Your task to perform on an android device: Open network settings Image 0: 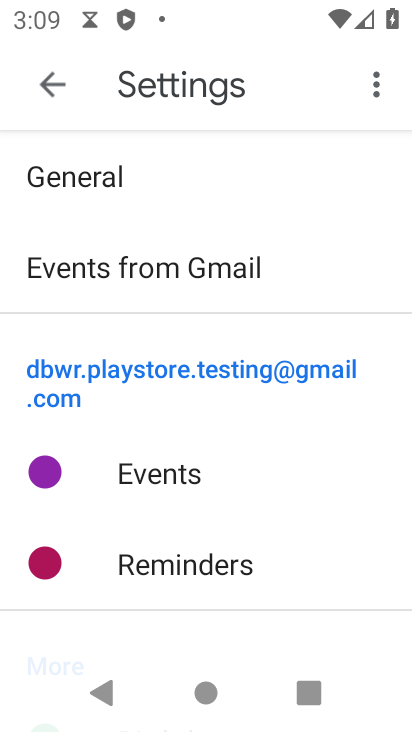
Step 0: press back button
Your task to perform on an android device: Open network settings Image 1: 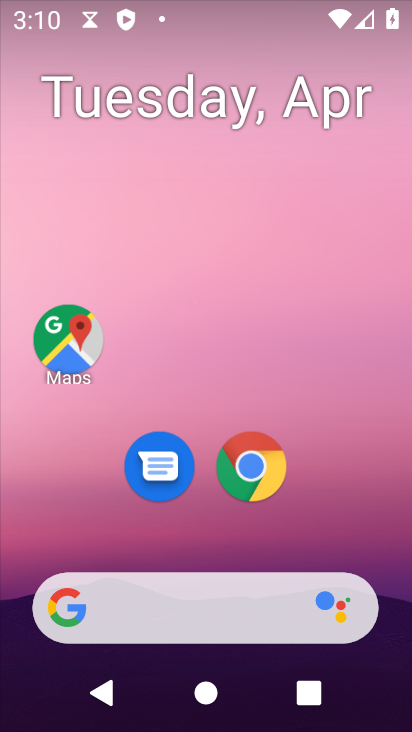
Step 1: drag from (307, 386) to (221, 19)
Your task to perform on an android device: Open network settings Image 2: 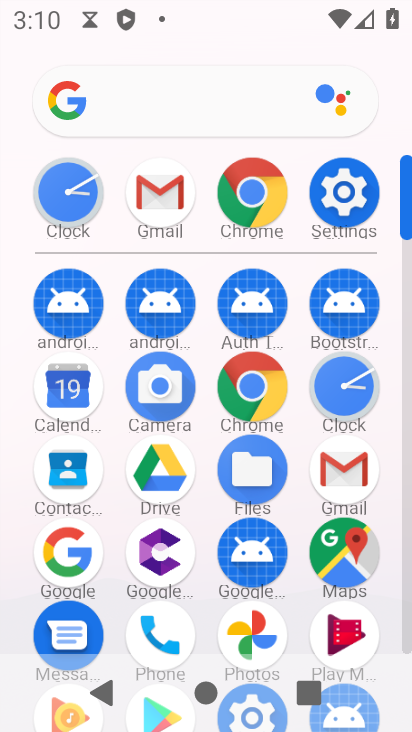
Step 2: drag from (7, 482) to (3, 241)
Your task to perform on an android device: Open network settings Image 3: 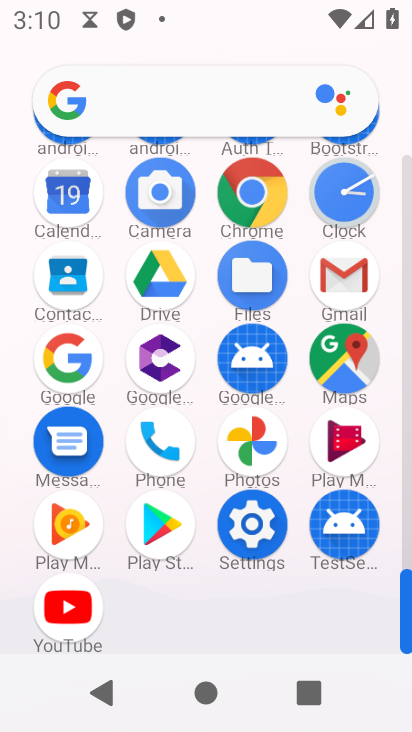
Step 3: drag from (4, 229) to (0, 370)
Your task to perform on an android device: Open network settings Image 4: 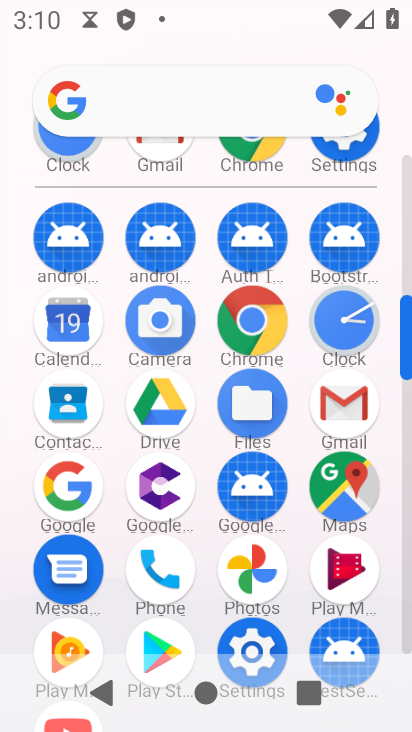
Step 4: click (251, 637)
Your task to perform on an android device: Open network settings Image 5: 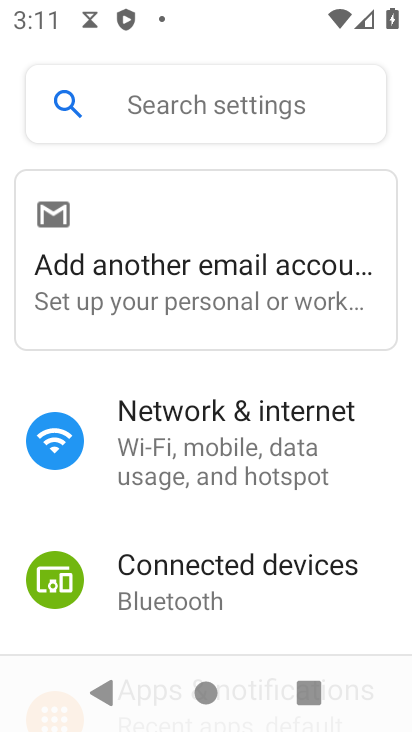
Step 5: click (230, 451)
Your task to perform on an android device: Open network settings Image 6: 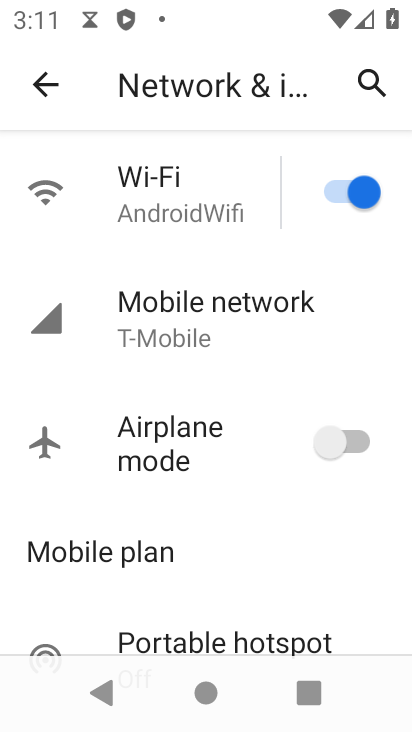
Step 6: click (238, 338)
Your task to perform on an android device: Open network settings Image 7: 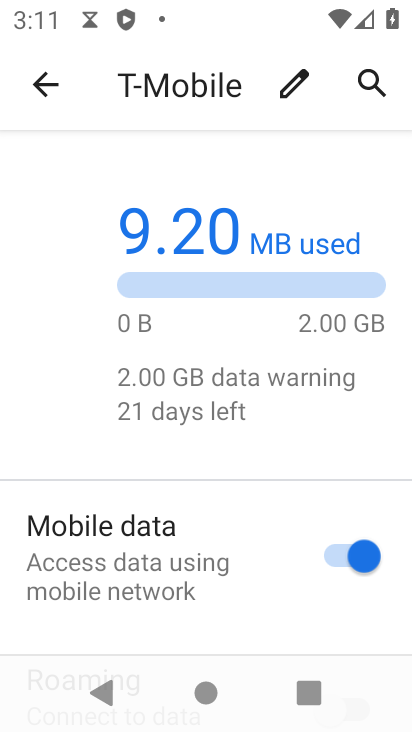
Step 7: drag from (179, 596) to (163, 445)
Your task to perform on an android device: Open network settings Image 8: 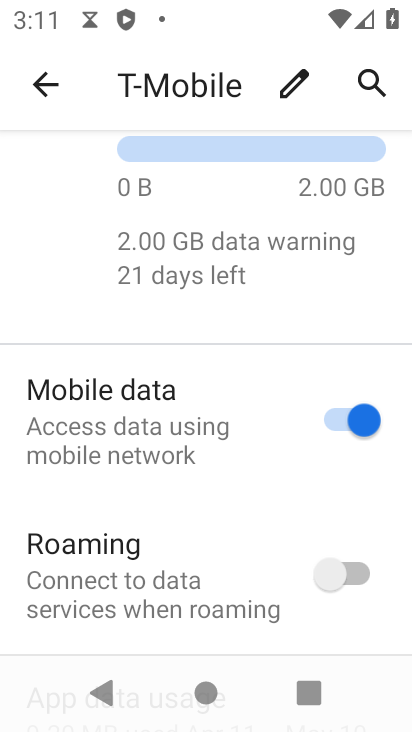
Step 8: drag from (177, 359) to (175, 601)
Your task to perform on an android device: Open network settings Image 9: 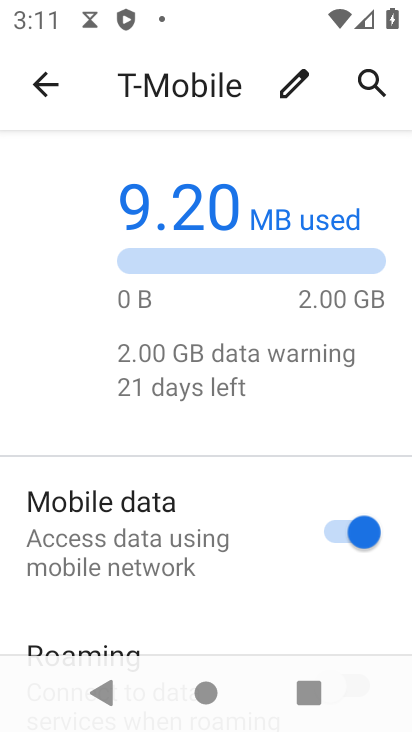
Step 9: click (47, 102)
Your task to perform on an android device: Open network settings Image 10: 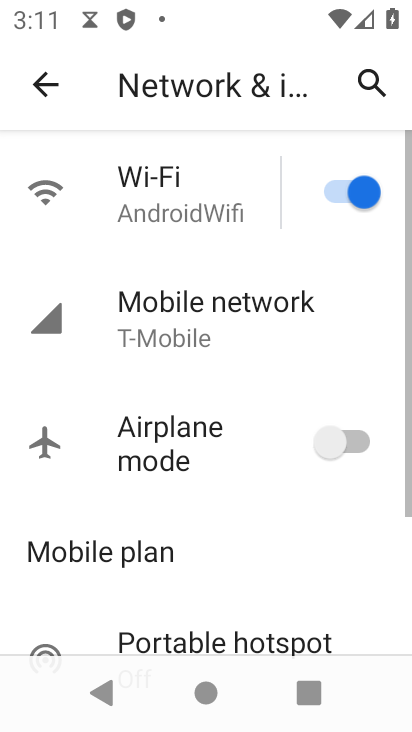
Step 10: task complete